Your task to perform on an android device: Go to Wikipedia Image 0: 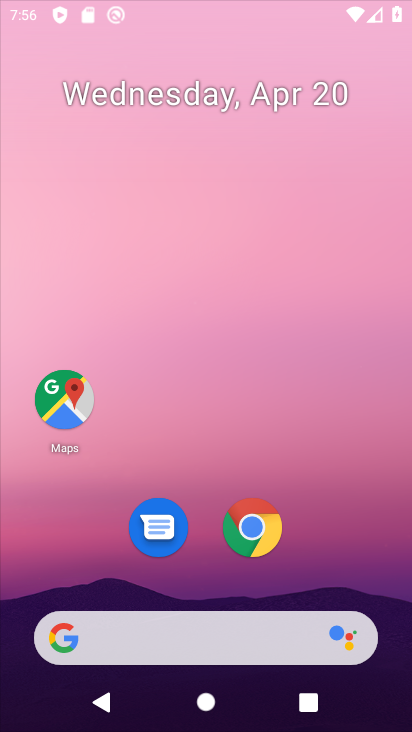
Step 0: click (255, 528)
Your task to perform on an android device: Go to Wikipedia Image 1: 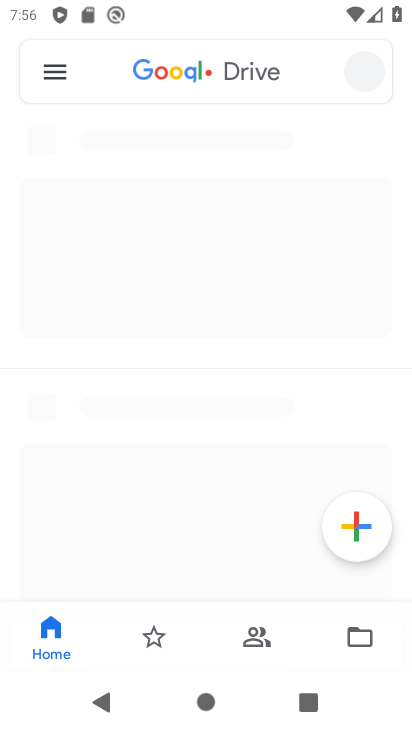
Step 1: click (255, 528)
Your task to perform on an android device: Go to Wikipedia Image 2: 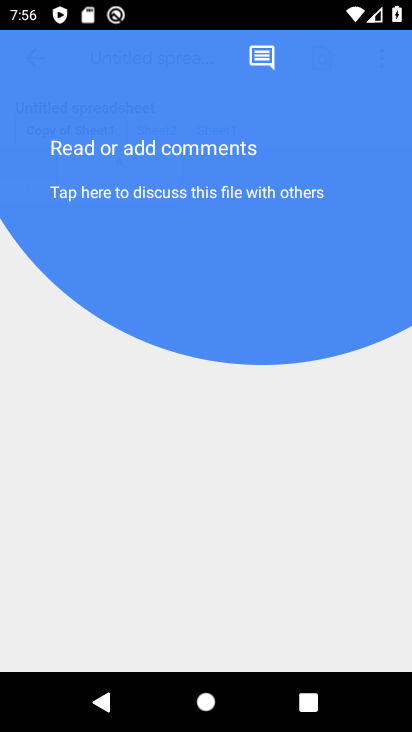
Step 2: press back button
Your task to perform on an android device: Go to Wikipedia Image 3: 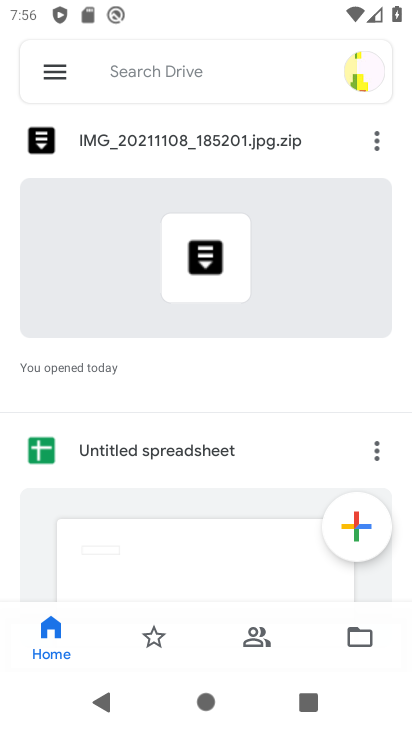
Step 3: press home button
Your task to perform on an android device: Go to Wikipedia Image 4: 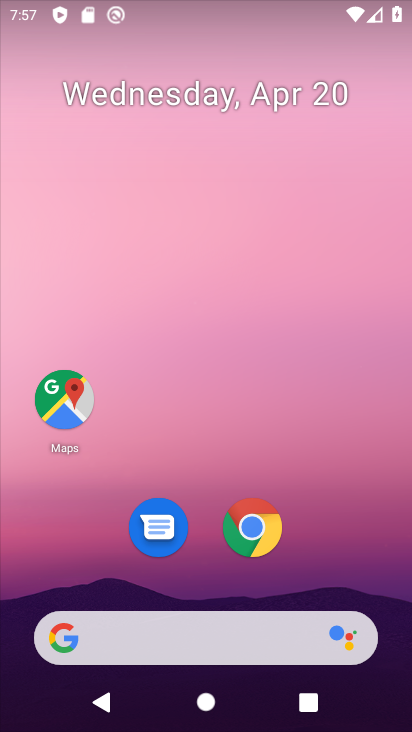
Step 4: click (266, 530)
Your task to perform on an android device: Go to Wikipedia Image 5: 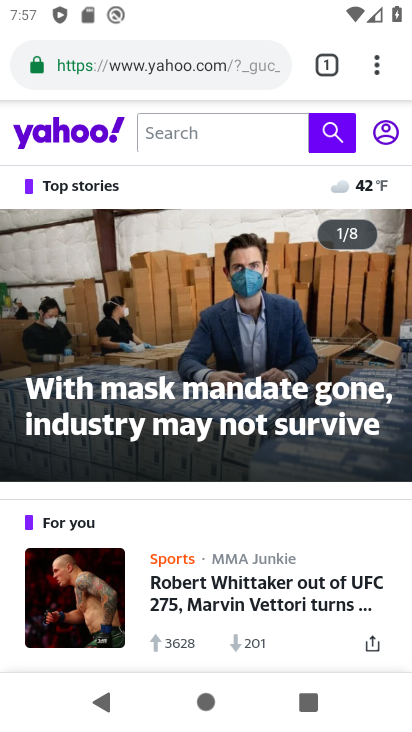
Step 5: click (326, 60)
Your task to perform on an android device: Go to Wikipedia Image 6: 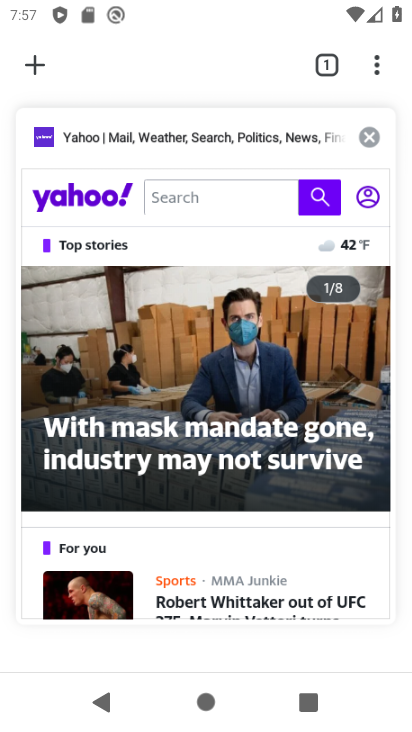
Step 6: click (326, 60)
Your task to perform on an android device: Go to Wikipedia Image 7: 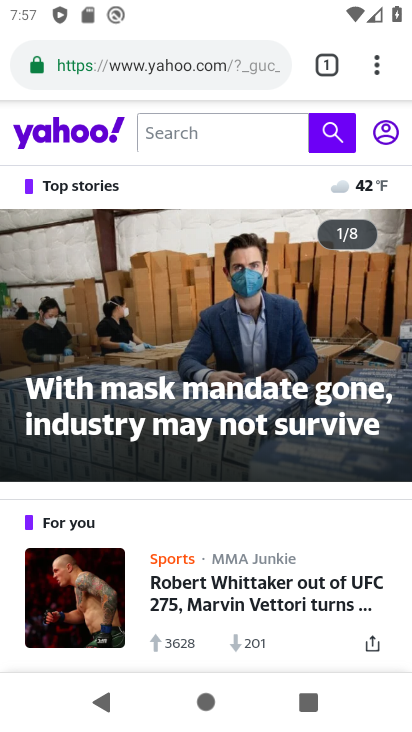
Step 7: click (326, 60)
Your task to perform on an android device: Go to Wikipedia Image 8: 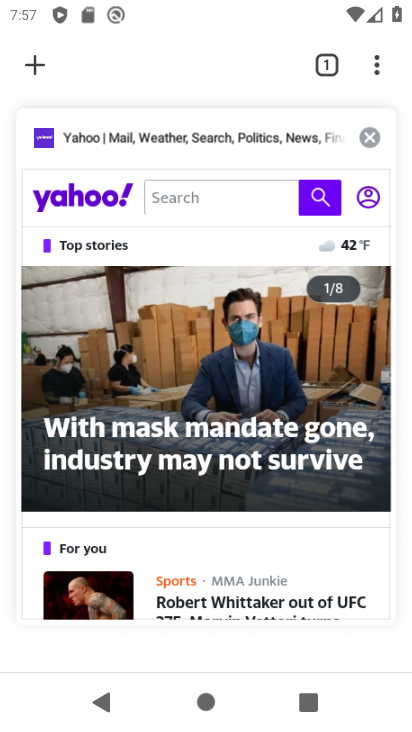
Step 8: click (34, 66)
Your task to perform on an android device: Go to Wikipedia Image 9: 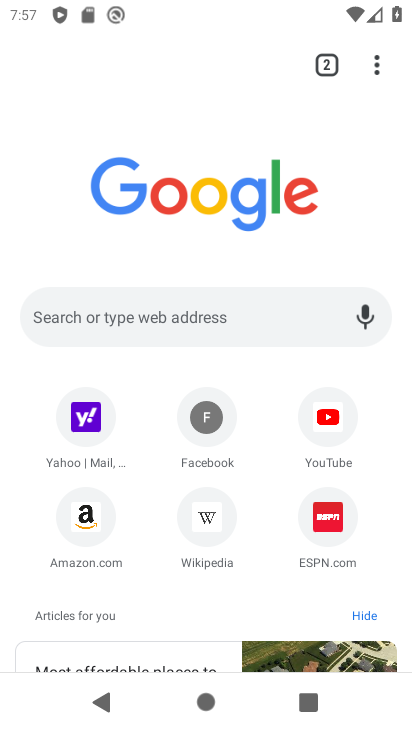
Step 9: click (114, 307)
Your task to perform on an android device: Go to Wikipedia Image 10: 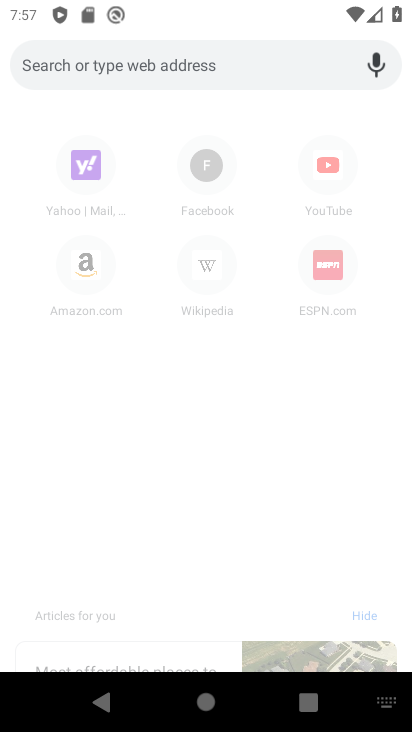
Step 10: click (205, 274)
Your task to perform on an android device: Go to Wikipedia Image 11: 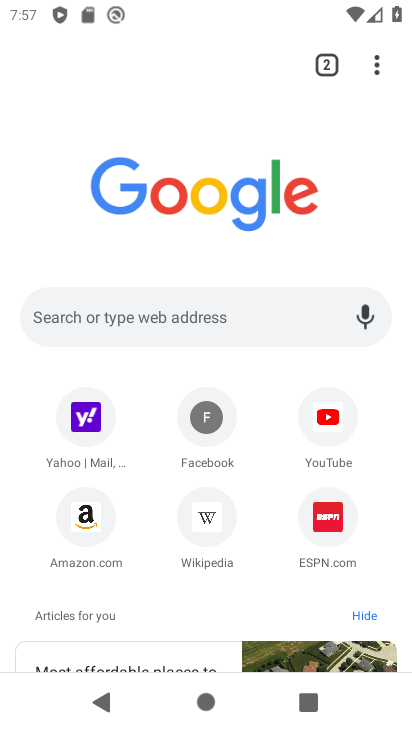
Step 11: click (214, 514)
Your task to perform on an android device: Go to Wikipedia Image 12: 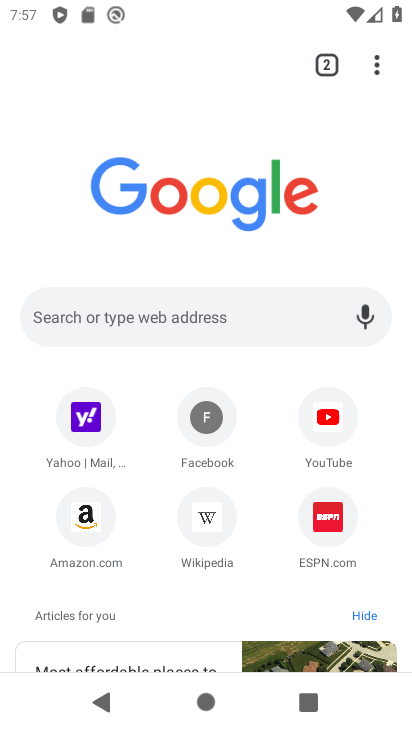
Step 12: click (214, 514)
Your task to perform on an android device: Go to Wikipedia Image 13: 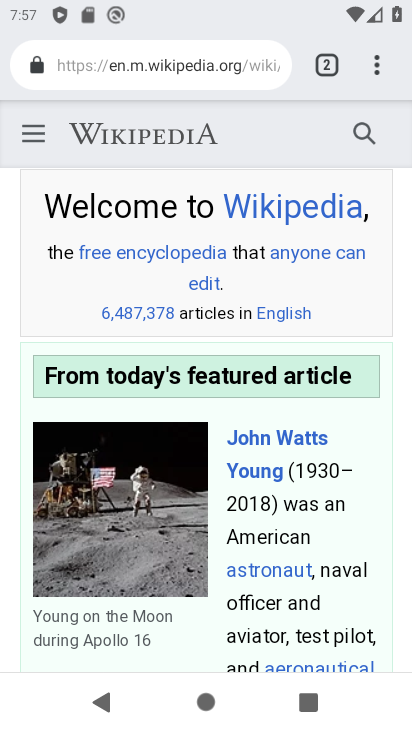
Step 13: task complete